Your task to perform on an android device: Open battery settings Image 0: 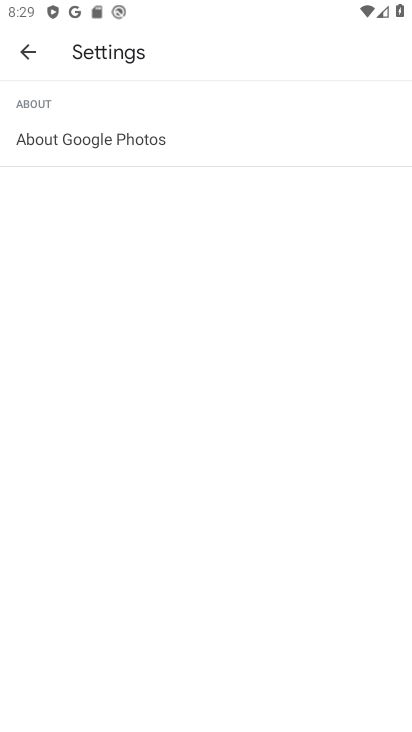
Step 0: press home button
Your task to perform on an android device: Open battery settings Image 1: 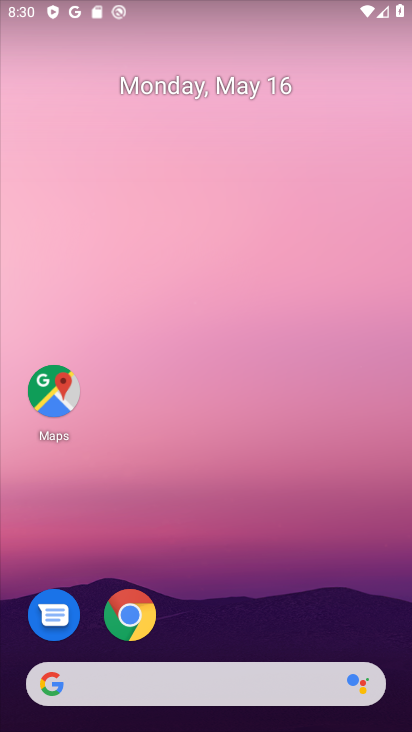
Step 1: drag from (35, 420) to (179, 125)
Your task to perform on an android device: Open battery settings Image 2: 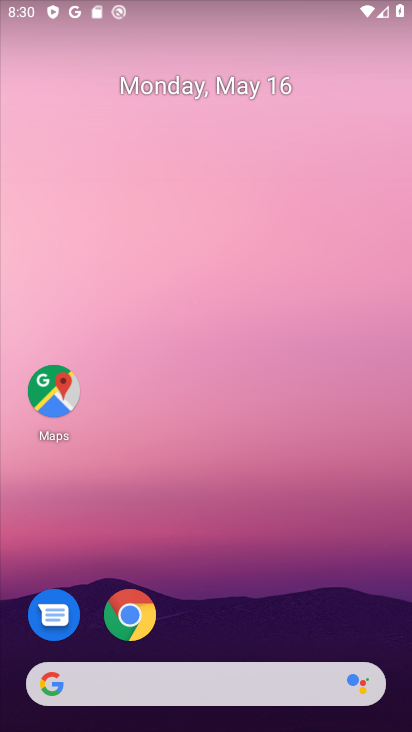
Step 2: drag from (20, 609) to (298, 2)
Your task to perform on an android device: Open battery settings Image 3: 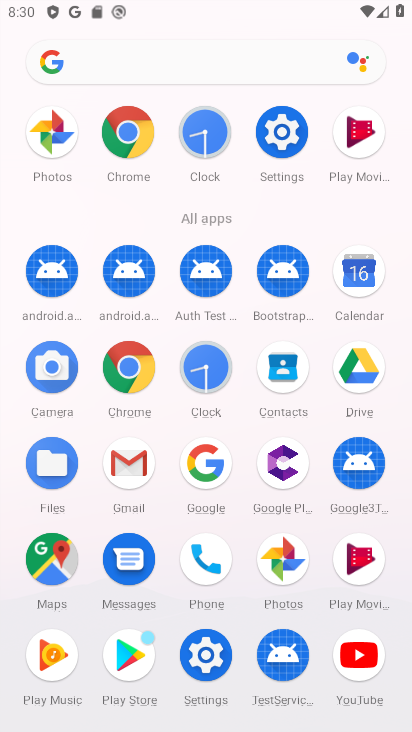
Step 3: click (277, 136)
Your task to perform on an android device: Open battery settings Image 4: 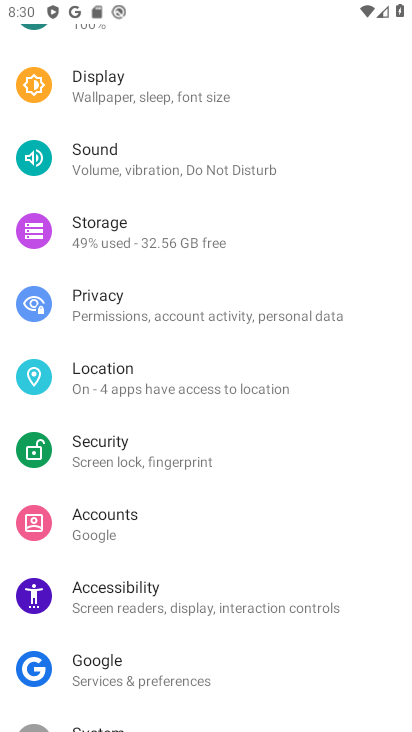
Step 4: drag from (102, 114) to (166, 604)
Your task to perform on an android device: Open battery settings Image 5: 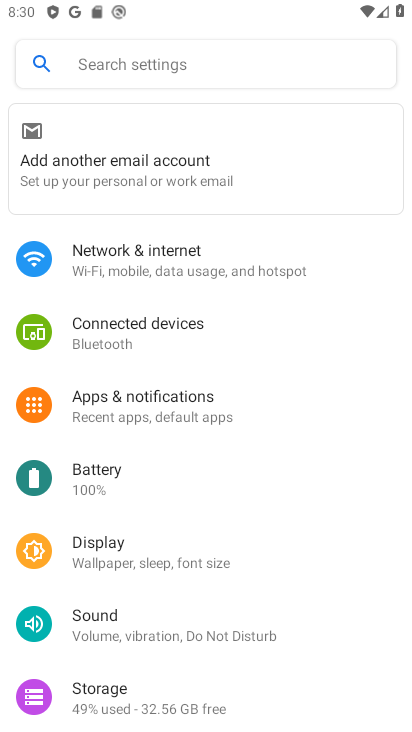
Step 5: drag from (81, 624) to (205, 252)
Your task to perform on an android device: Open battery settings Image 6: 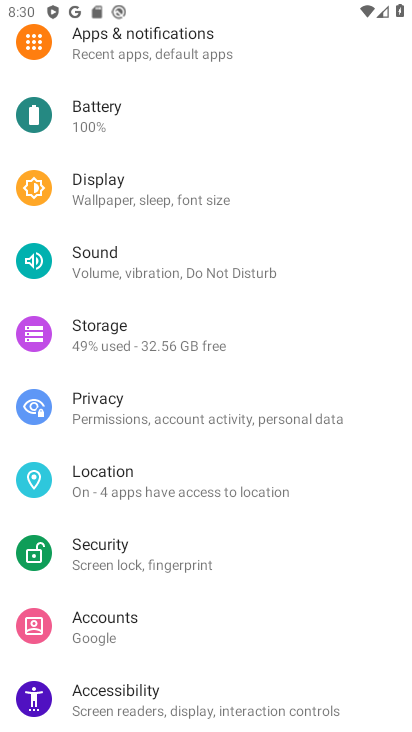
Step 6: click (112, 115)
Your task to perform on an android device: Open battery settings Image 7: 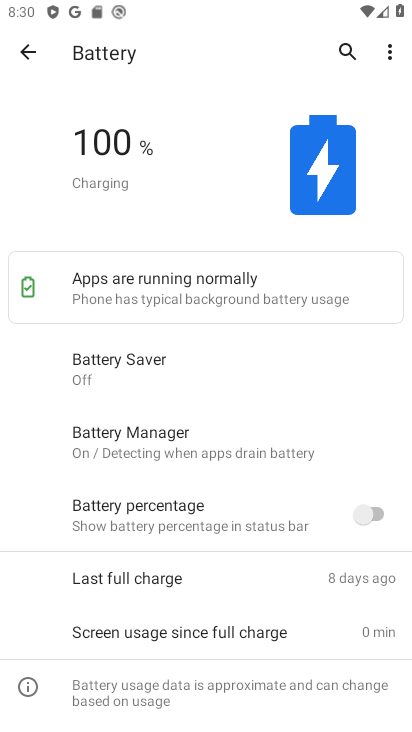
Step 7: task complete